Your task to perform on an android device: install app "Adobe Acrobat Reader: Edit PDF" Image 0: 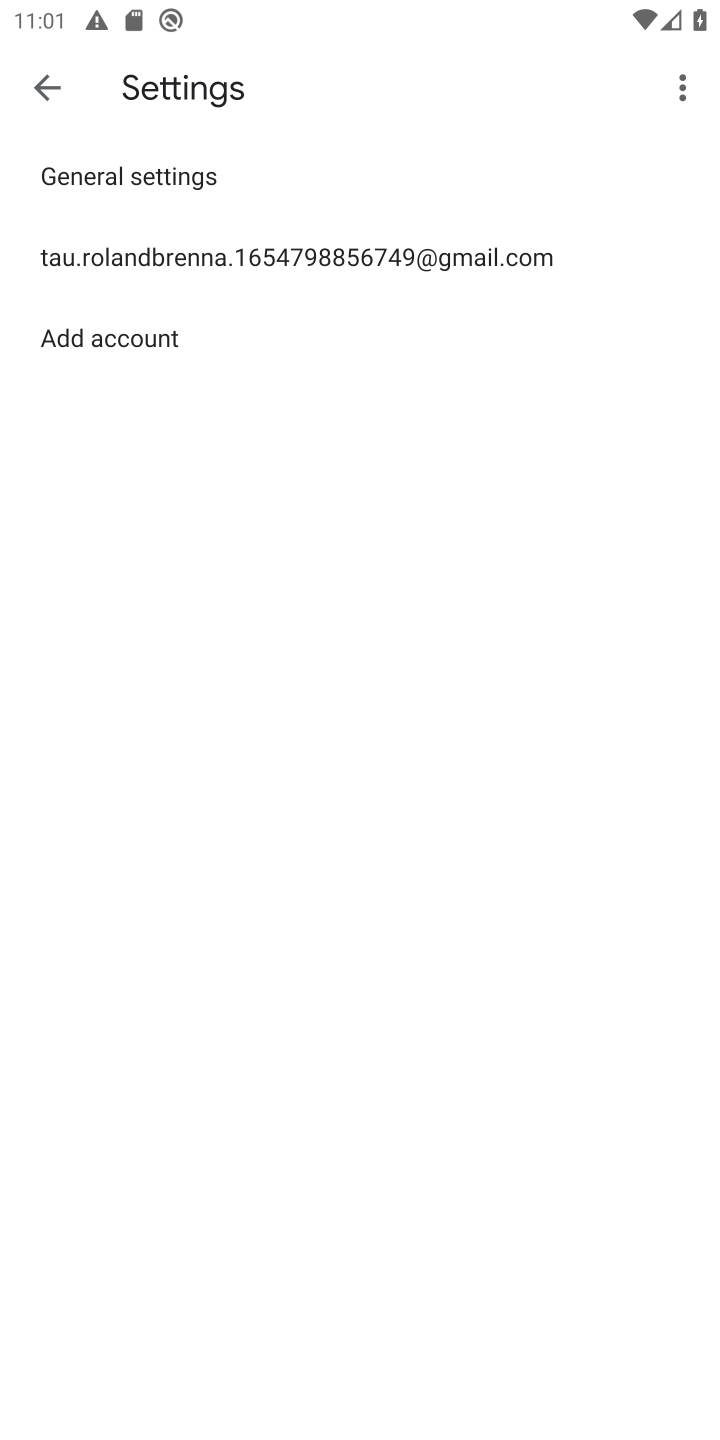
Step 0: press home button
Your task to perform on an android device: install app "Adobe Acrobat Reader: Edit PDF" Image 1: 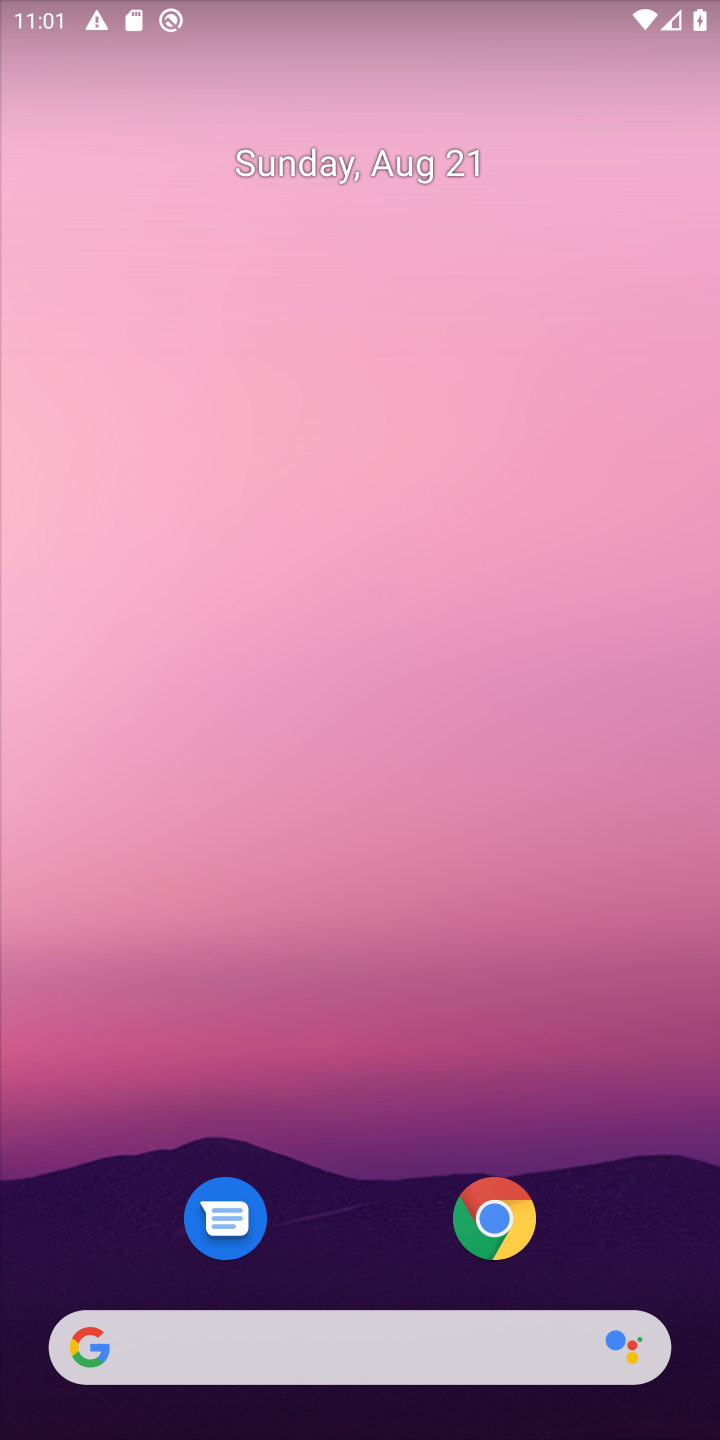
Step 1: drag from (369, 923) to (369, 572)
Your task to perform on an android device: install app "Adobe Acrobat Reader: Edit PDF" Image 2: 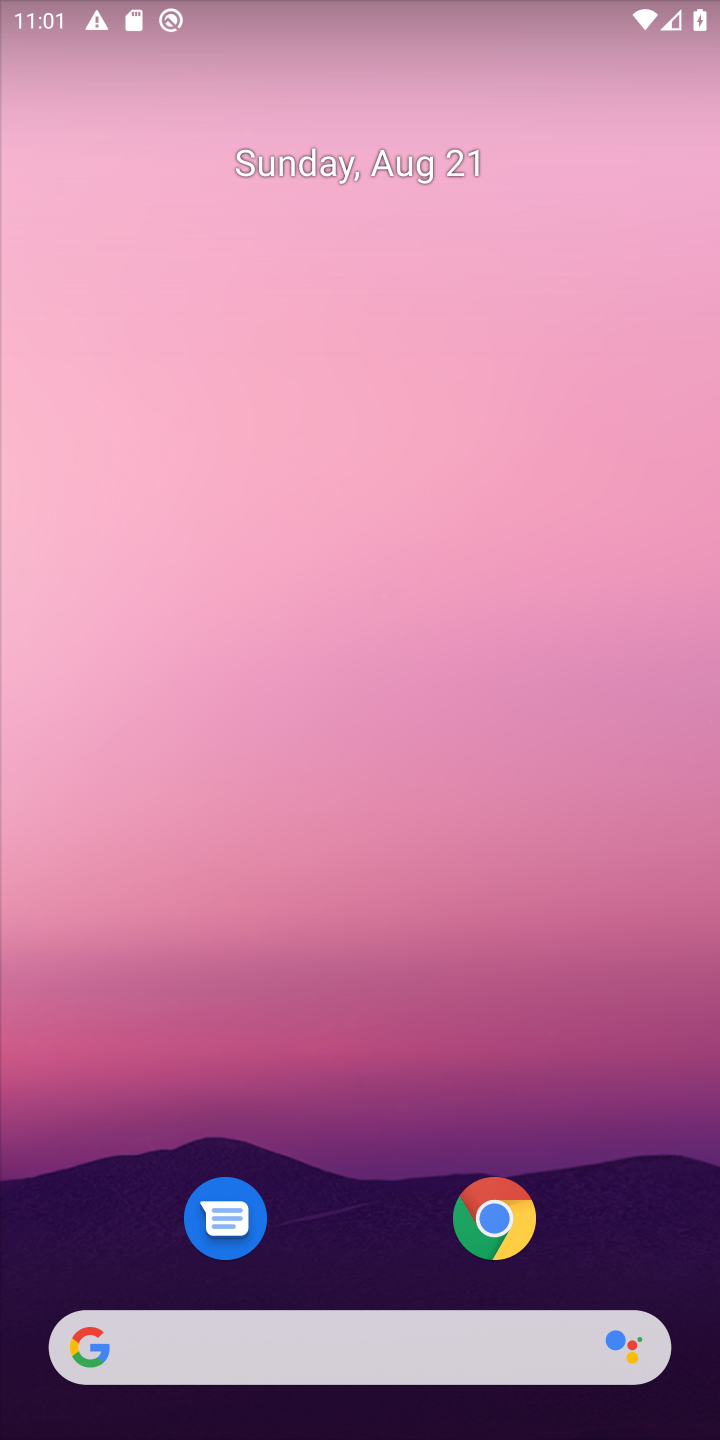
Step 2: drag from (391, 737) to (473, 256)
Your task to perform on an android device: install app "Adobe Acrobat Reader: Edit PDF" Image 3: 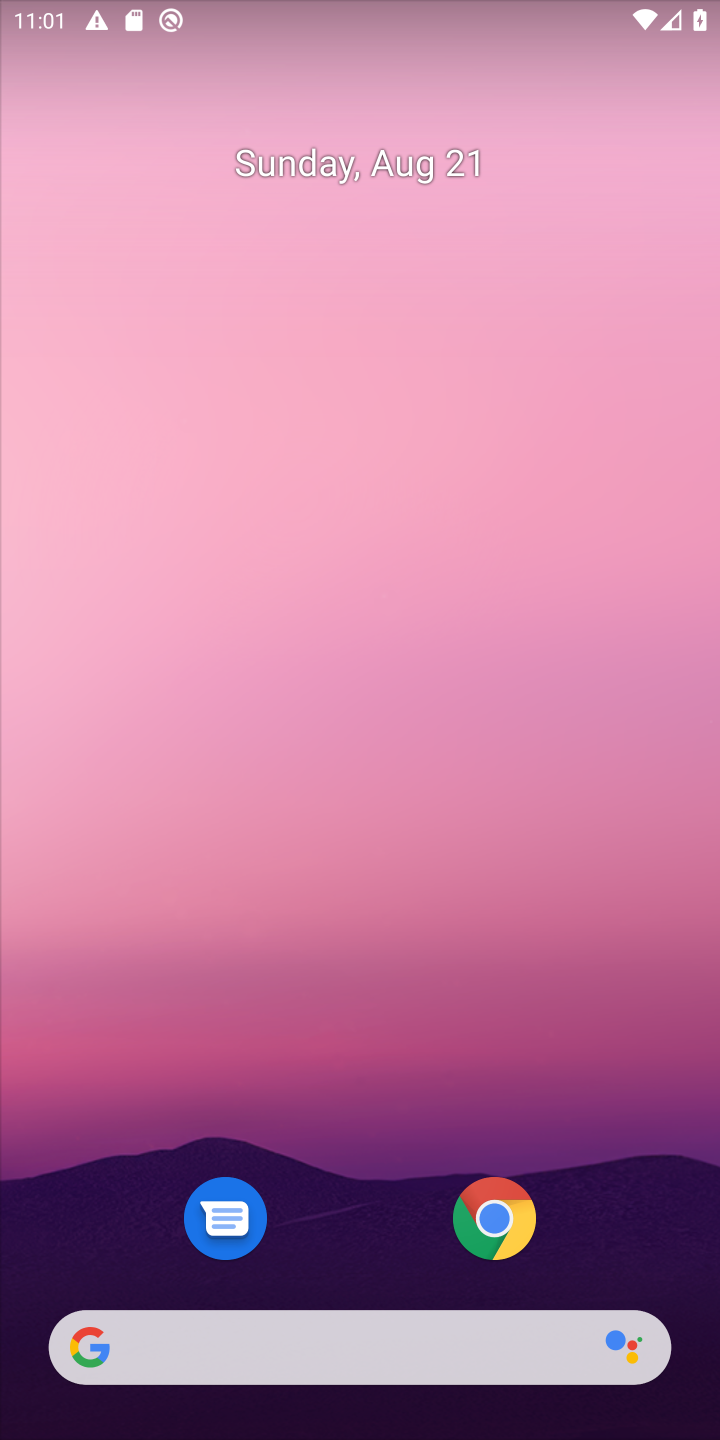
Step 3: drag from (411, 1303) to (465, 451)
Your task to perform on an android device: install app "Adobe Acrobat Reader: Edit PDF" Image 4: 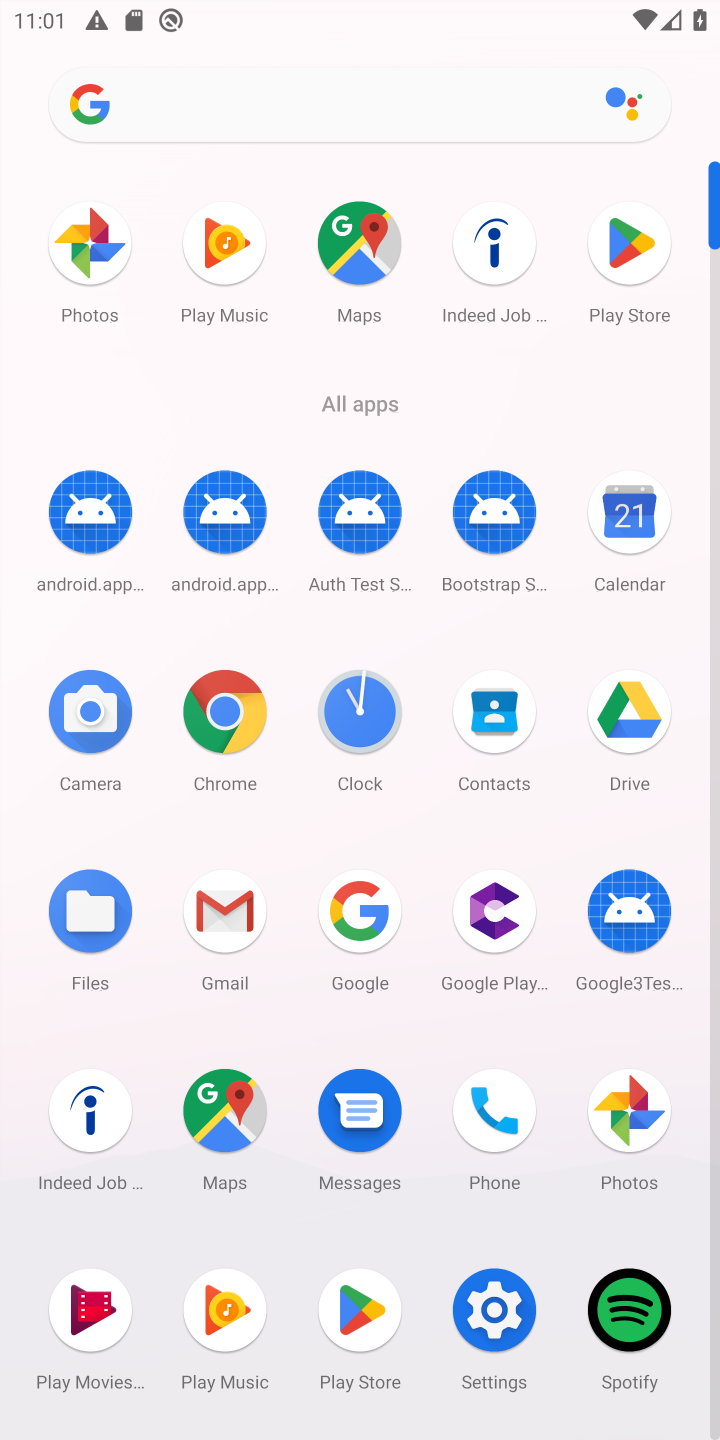
Step 4: click (365, 1321)
Your task to perform on an android device: install app "Adobe Acrobat Reader: Edit PDF" Image 5: 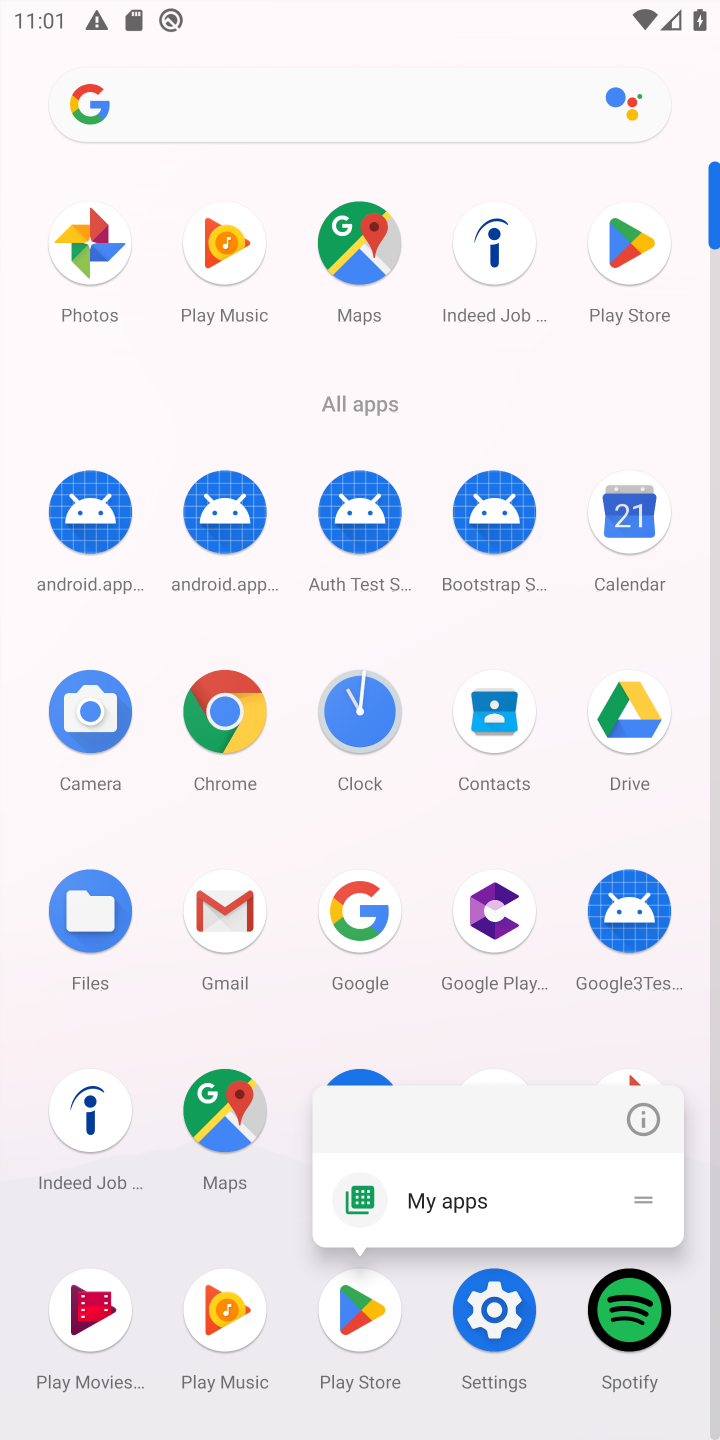
Step 5: click (342, 1329)
Your task to perform on an android device: install app "Adobe Acrobat Reader: Edit PDF" Image 6: 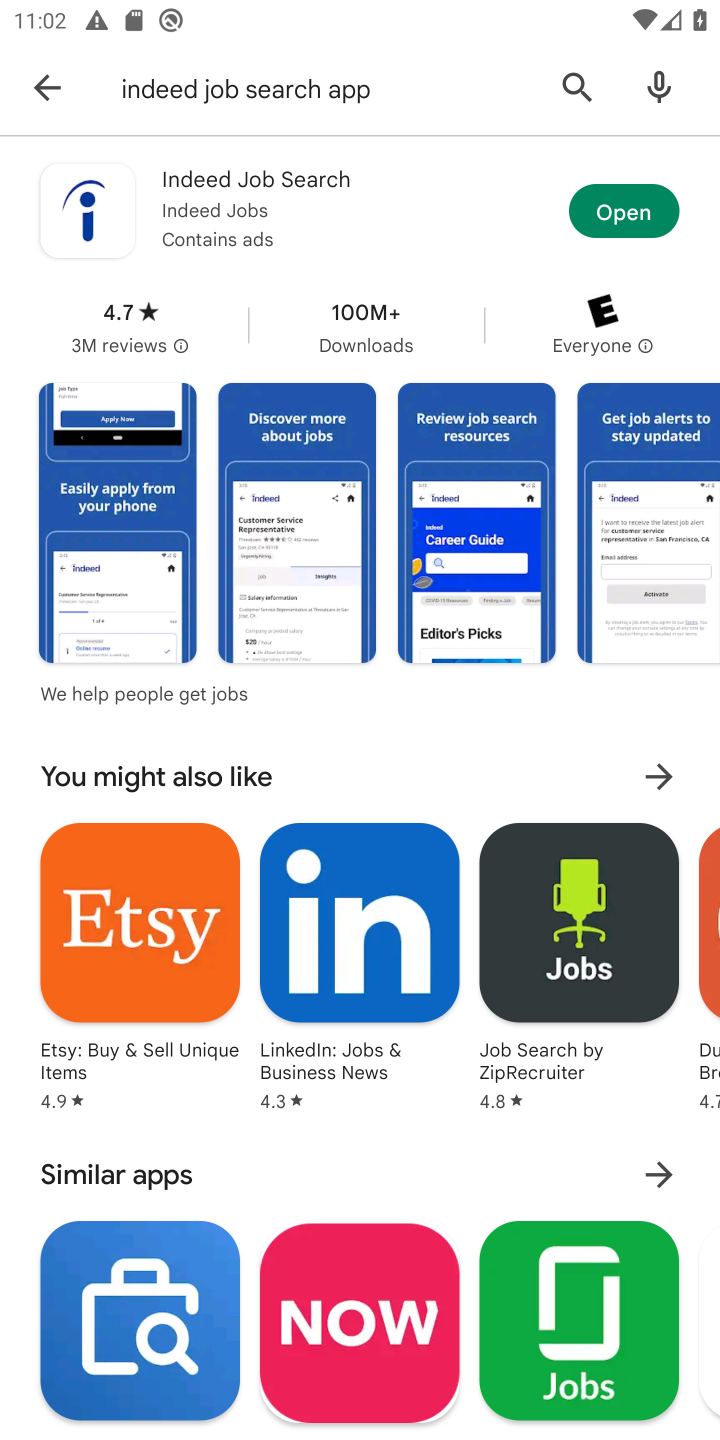
Step 6: click (576, 89)
Your task to perform on an android device: install app "Adobe Acrobat Reader: Edit PDF" Image 7: 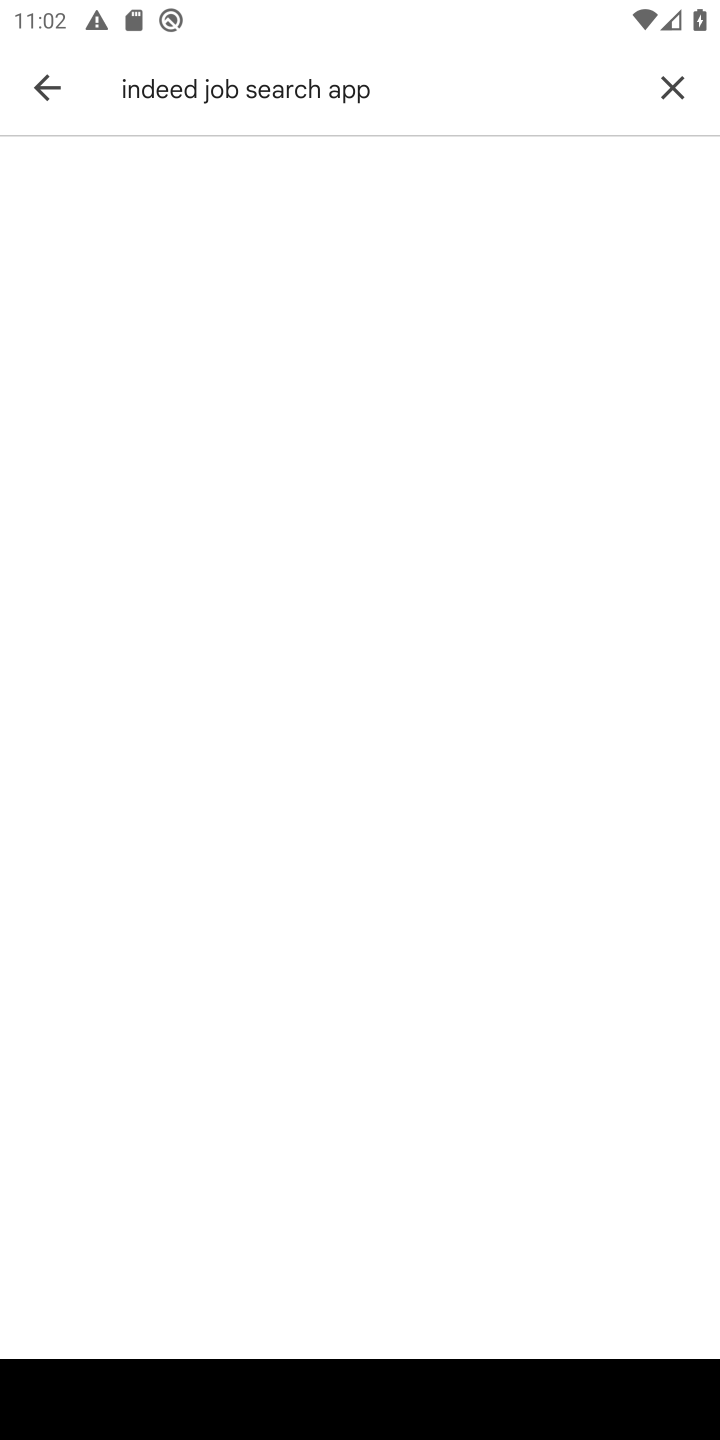
Step 7: click (674, 86)
Your task to perform on an android device: install app "Adobe Acrobat Reader: Edit PDF" Image 8: 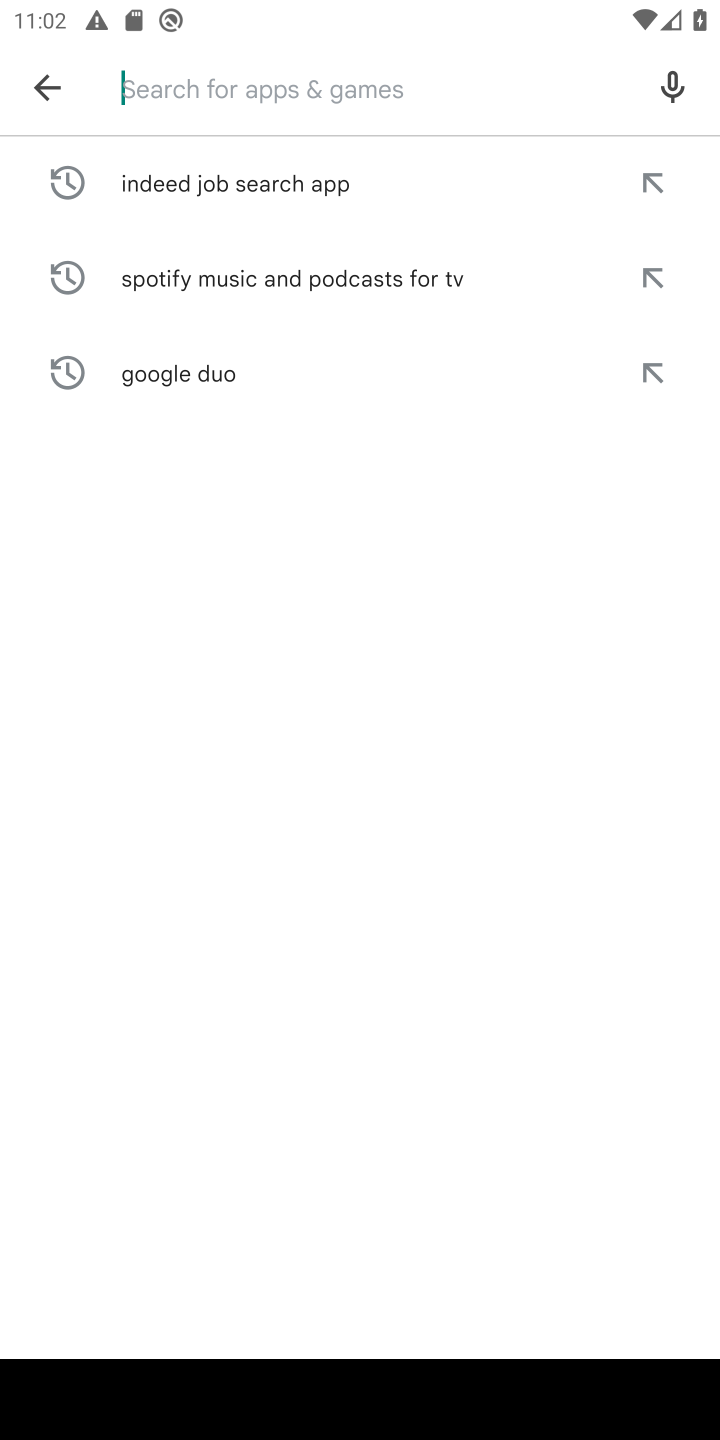
Step 8: type "Adobe Acrobat Reader: Edit PDF"
Your task to perform on an android device: install app "Adobe Acrobat Reader: Edit PDF" Image 9: 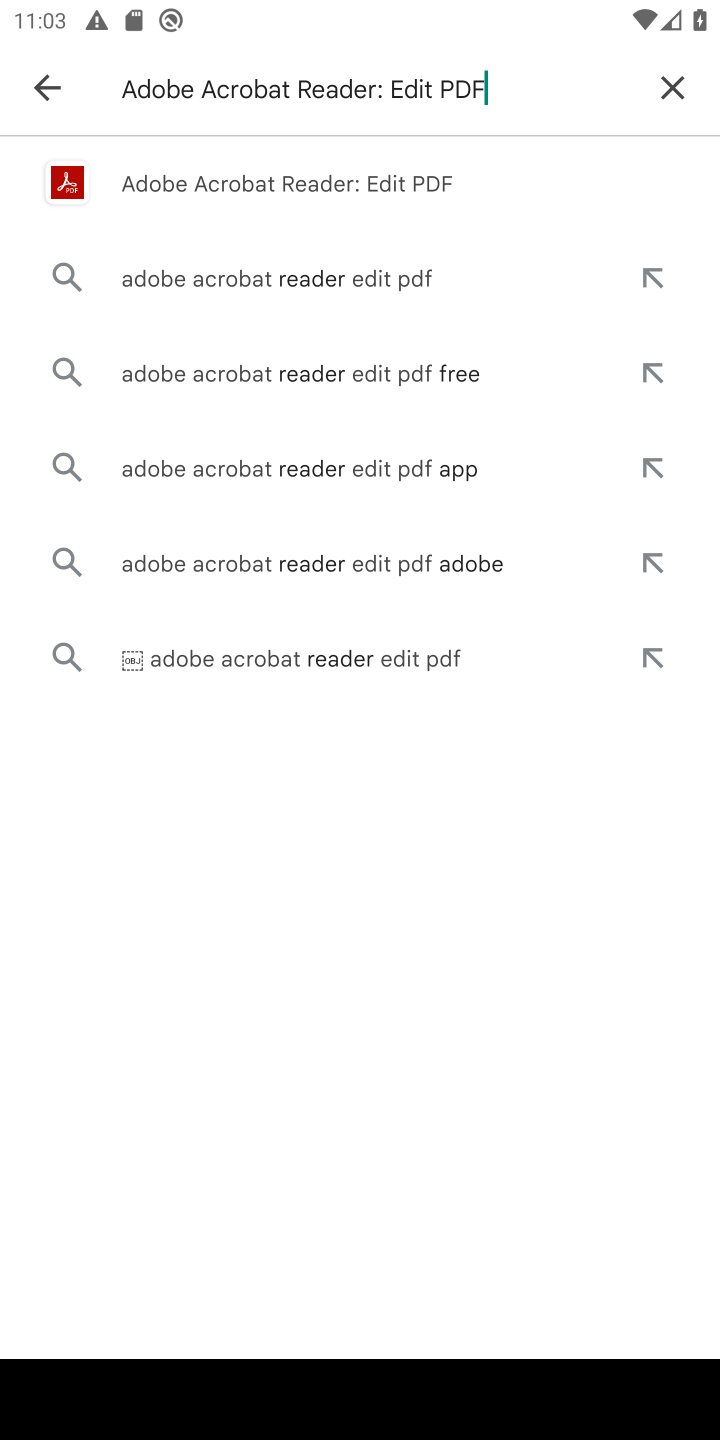
Step 9: click (245, 189)
Your task to perform on an android device: install app "Adobe Acrobat Reader: Edit PDF" Image 10: 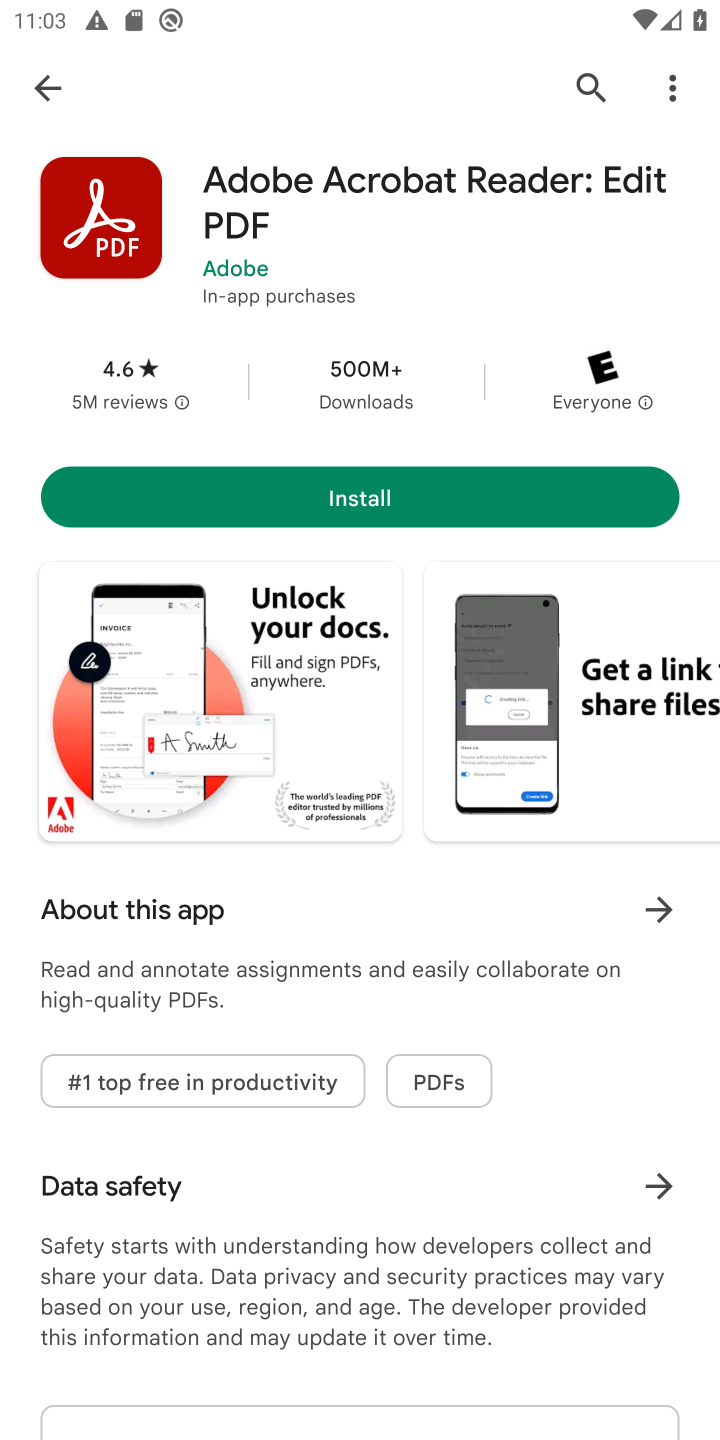
Step 10: click (377, 499)
Your task to perform on an android device: install app "Adobe Acrobat Reader: Edit PDF" Image 11: 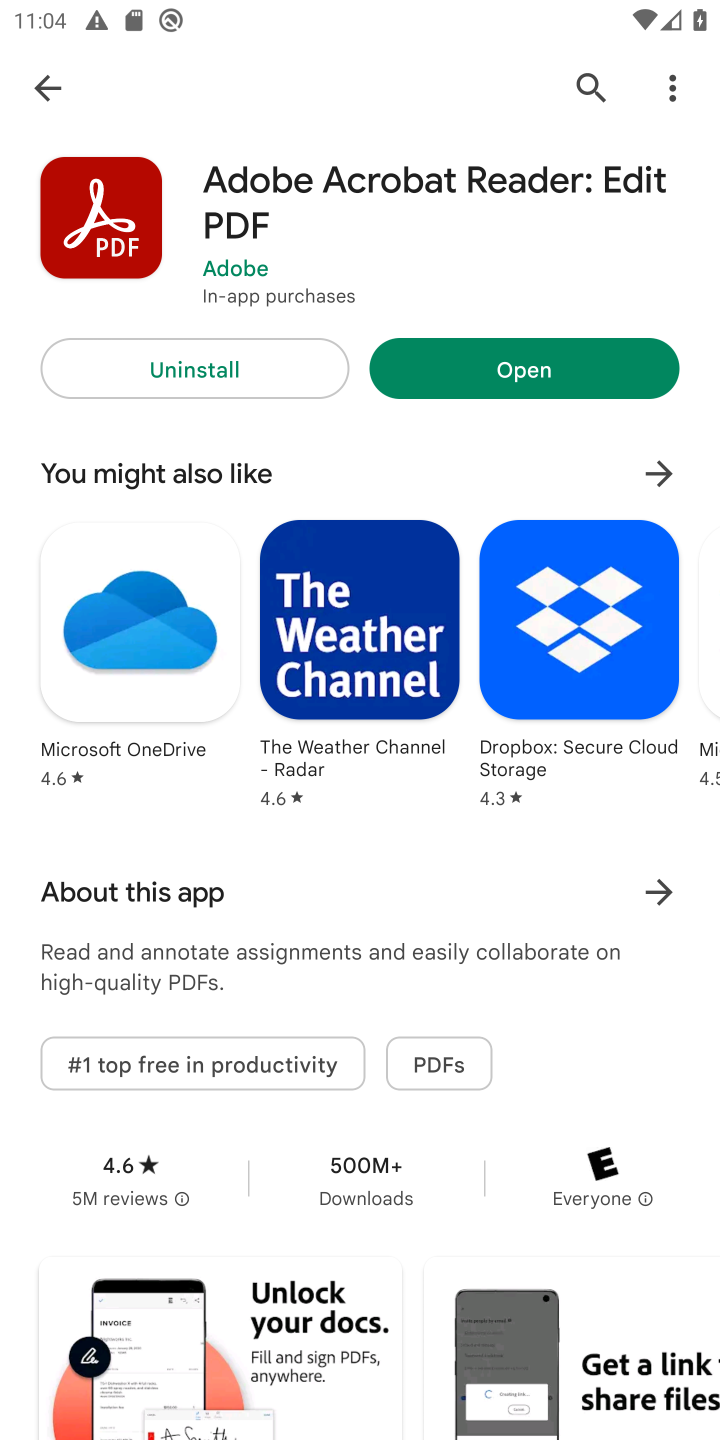
Step 11: click (504, 382)
Your task to perform on an android device: install app "Adobe Acrobat Reader: Edit PDF" Image 12: 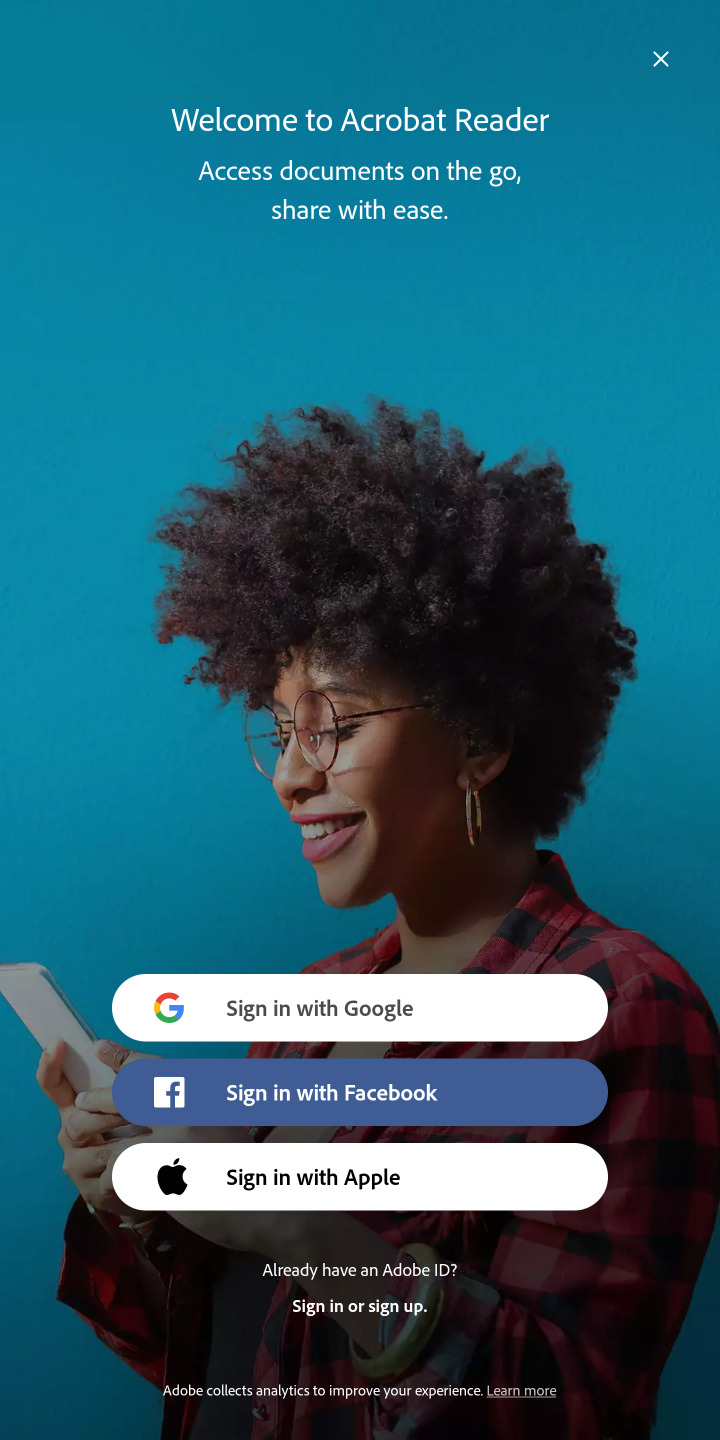
Step 12: task complete